Your task to perform on an android device: Open privacy settings Image 0: 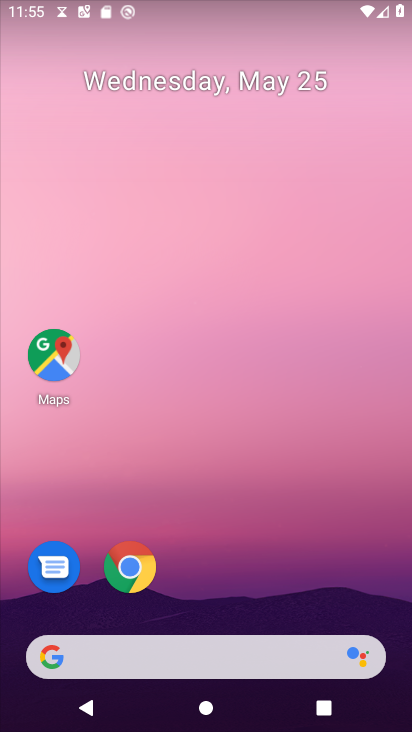
Step 0: drag from (213, 514) to (208, 28)
Your task to perform on an android device: Open privacy settings Image 1: 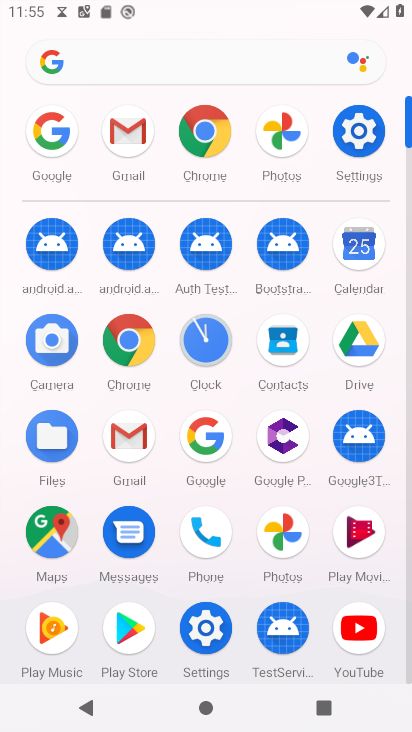
Step 1: click (355, 128)
Your task to perform on an android device: Open privacy settings Image 2: 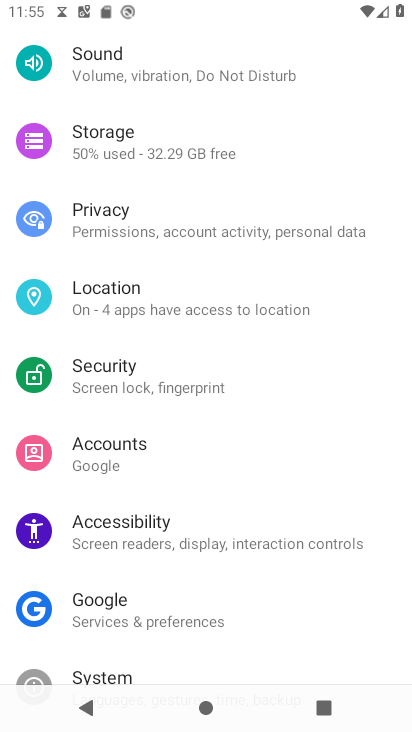
Step 2: click (160, 237)
Your task to perform on an android device: Open privacy settings Image 3: 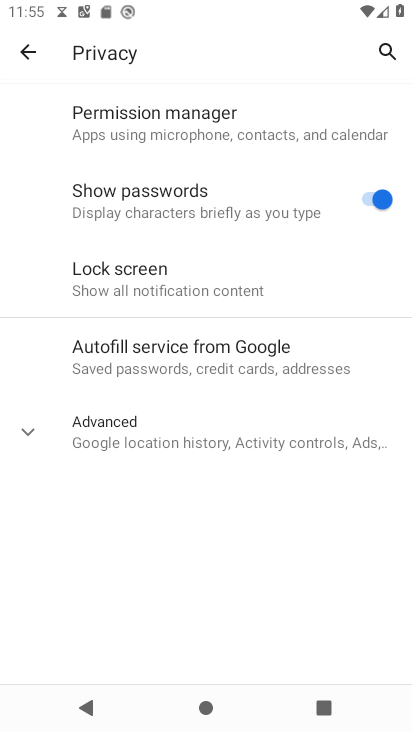
Step 3: task complete